Your task to perform on an android device: Open privacy settings Image 0: 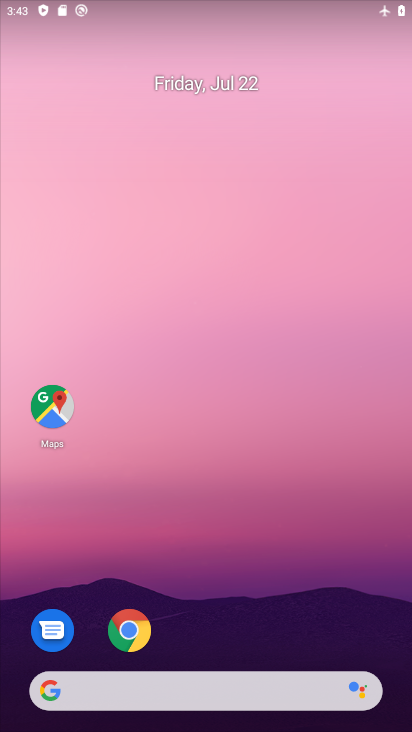
Step 0: drag from (216, 629) to (292, 17)
Your task to perform on an android device: Open privacy settings Image 1: 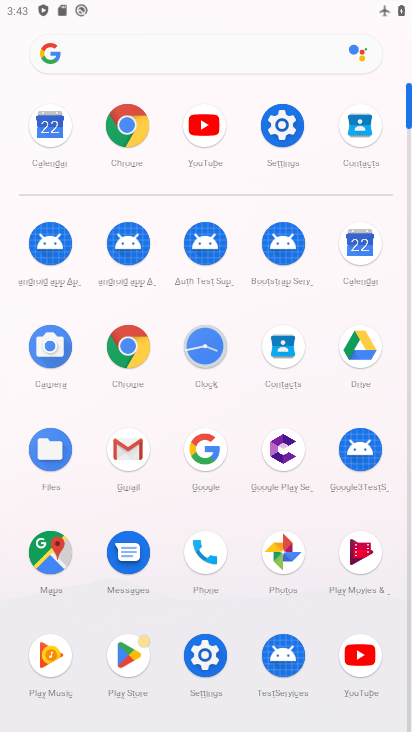
Step 1: click (202, 658)
Your task to perform on an android device: Open privacy settings Image 2: 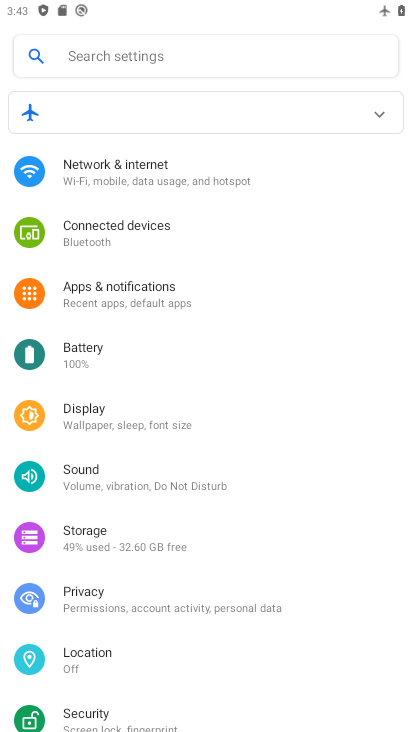
Step 2: click (136, 603)
Your task to perform on an android device: Open privacy settings Image 3: 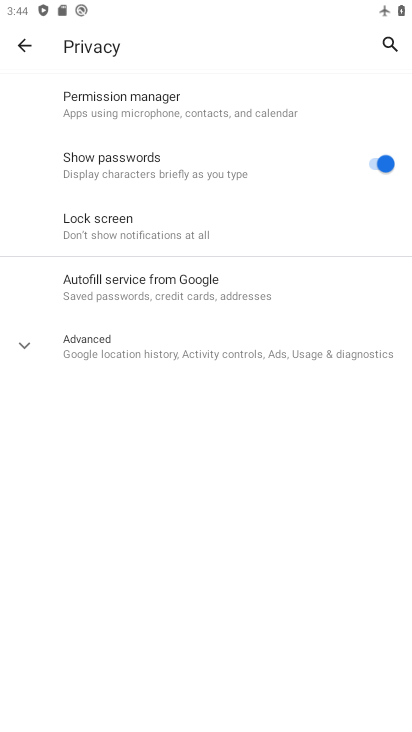
Step 3: task complete